Your task to perform on an android device: open device folders in google photos Image 0: 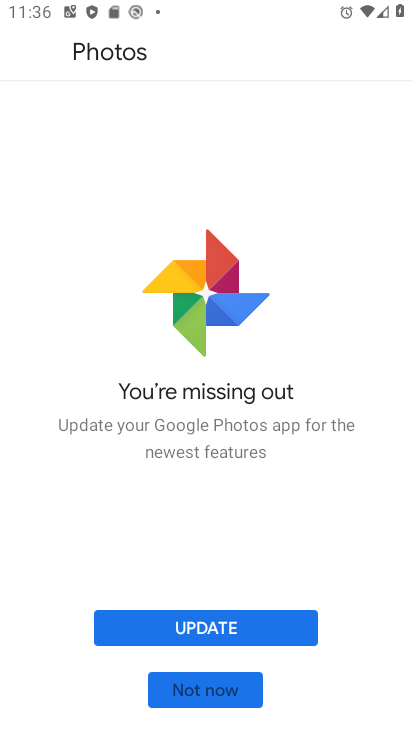
Step 0: press home button
Your task to perform on an android device: open device folders in google photos Image 1: 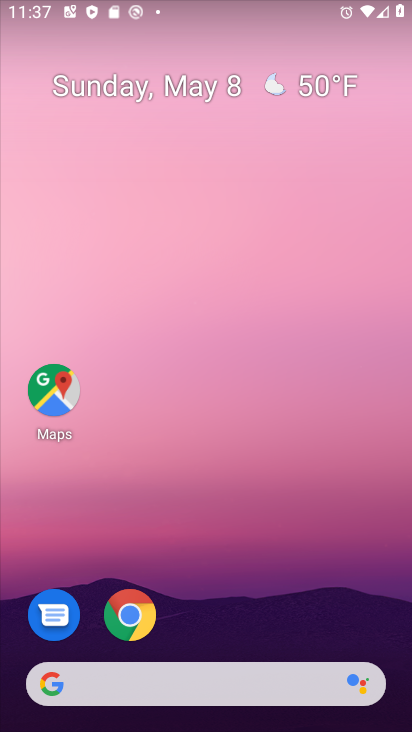
Step 1: drag from (283, 717) to (244, 220)
Your task to perform on an android device: open device folders in google photos Image 2: 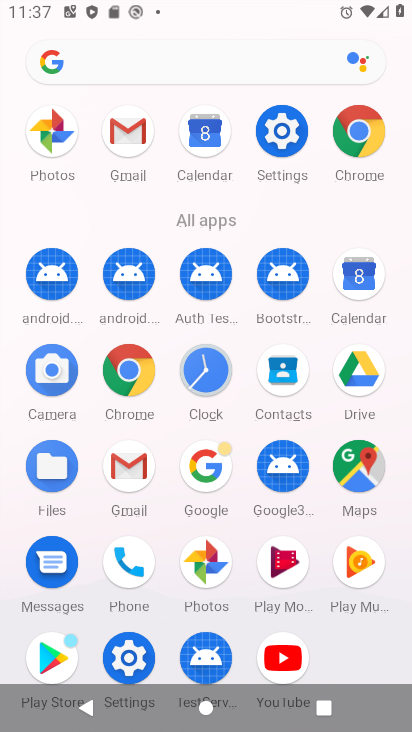
Step 2: click (226, 553)
Your task to perform on an android device: open device folders in google photos Image 3: 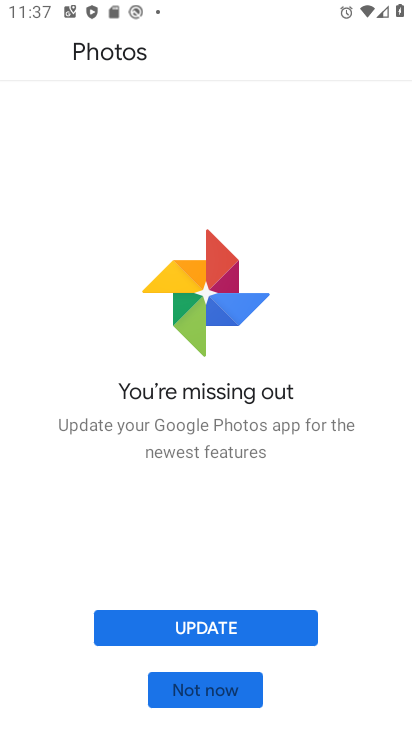
Step 3: click (217, 684)
Your task to perform on an android device: open device folders in google photos Image 4: 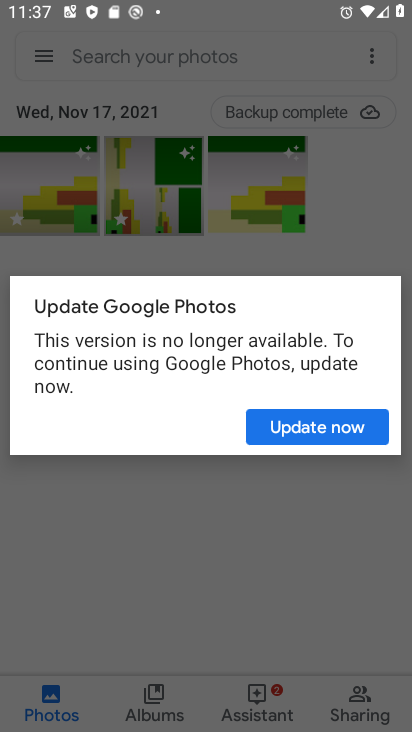
Step 4: click (305, 433)
Your task to perform on an android device: open device folders in google photos Image 5: 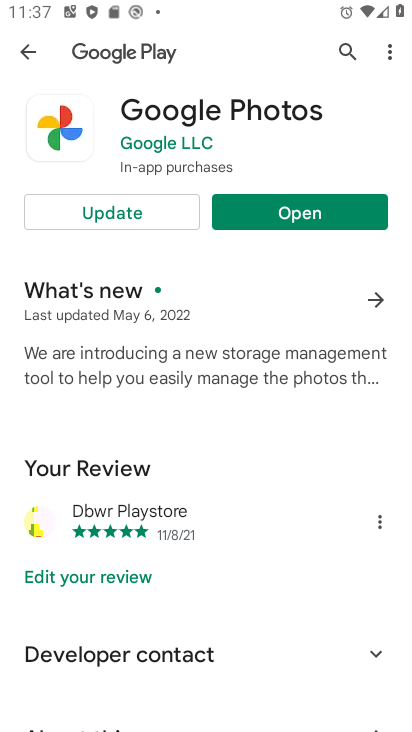
Step 5: click (278, 218)
Your task to perform on an android device: open device folders in google photos Image 6: 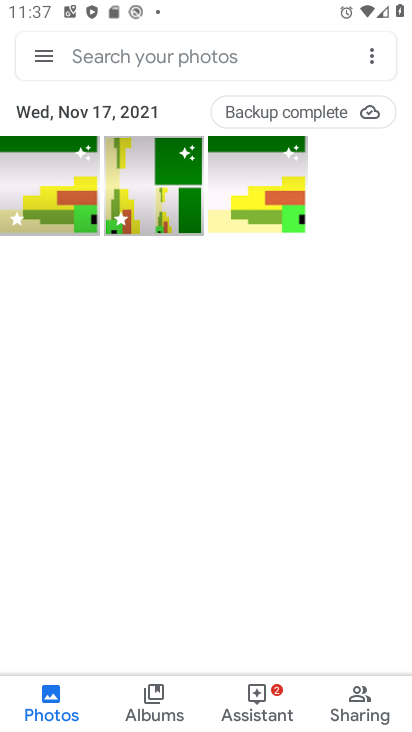
Step 6: click (29, 50)
Your task to perform on an android device: open device folders in google photos Image 7: 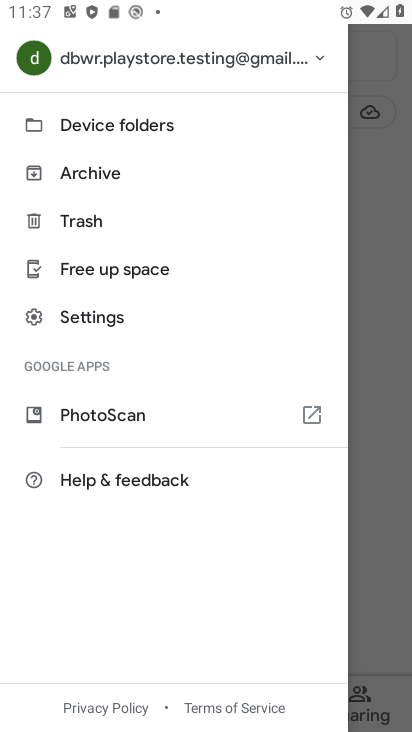
Step 7: click (80, 133)
Your task to perform on an android device: open device folders in google photos Image 8: 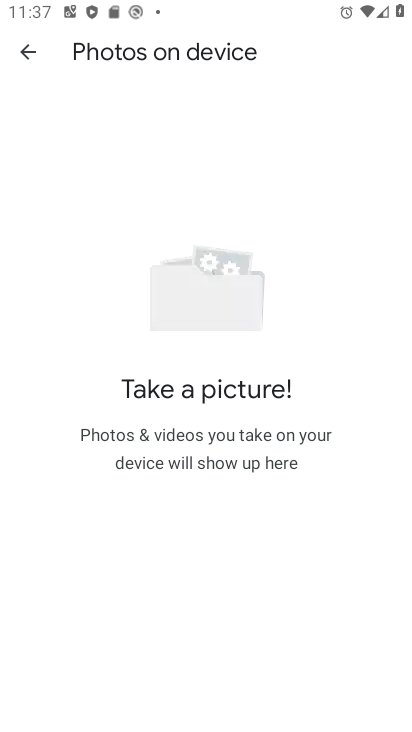
Step 8: task complete